Your task to perform on an android device: check google app version Image 0: 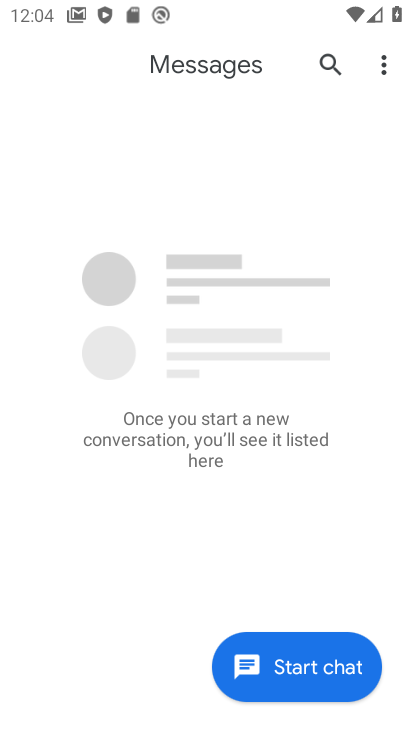
Step 0: press home button
Your task to perform on an android device: check google app version Image 1: 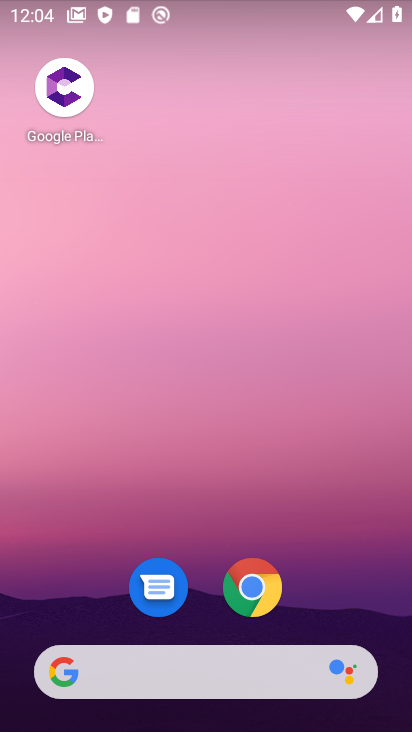
Step 1: drag from (63, 439) to (184, 128)
Your task to perform on an android device: check google app version Image 2: 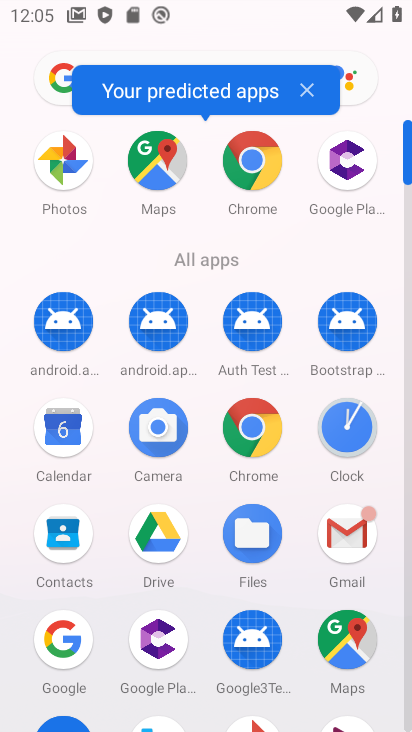
Step 2: click (237, 639)
Your task to perform on an android device: check google app version Image 3: 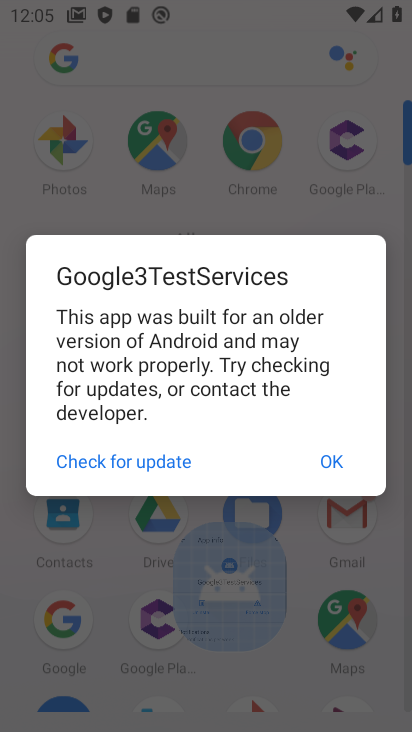
Step 3: click (336, 458)
Your task to perform on an android device: check google app version Image 4: 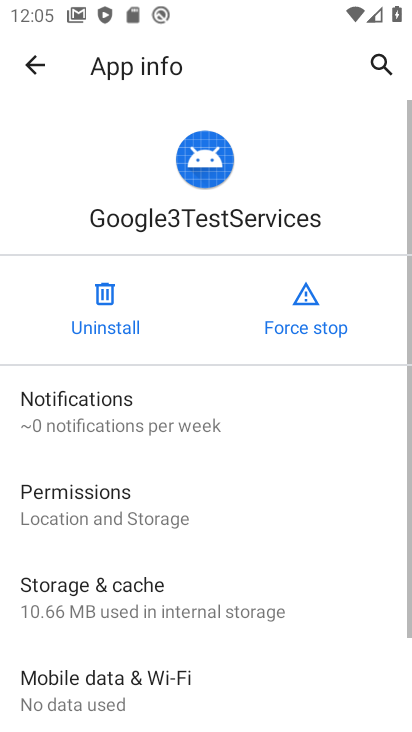
Step 4: drag from (218, 631) to (268, 218)
Your task to perform on an android device: check google app version Image 5: 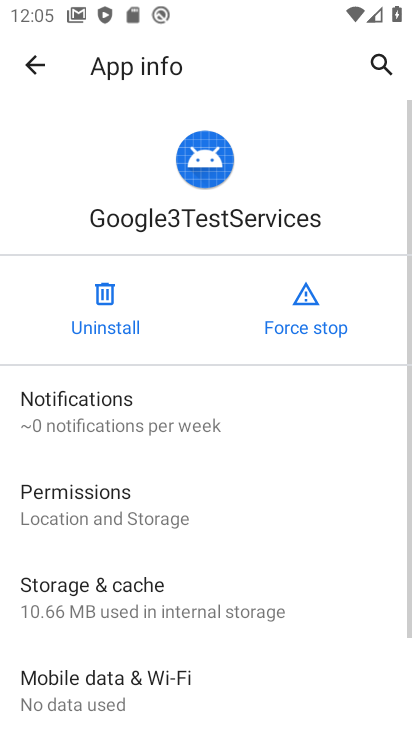
Step 5: drag from (92, 675) to (223, 240)
Your task to perform on an android device: check google app version Image 6: 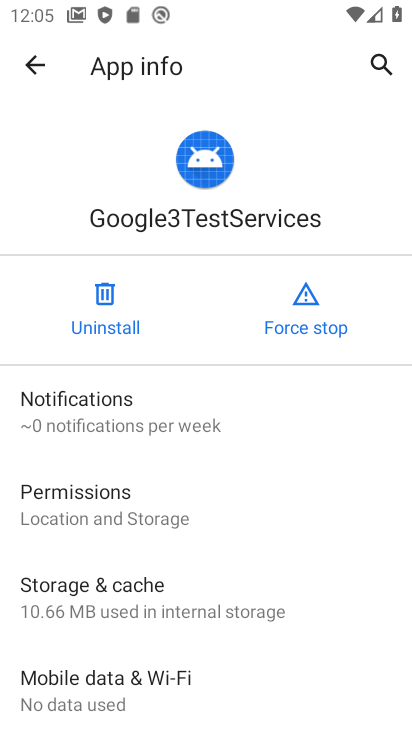
Step 6: drag from (51, 639) to (212, 322)
Your task to perform on an android device: check google app version Image 7: 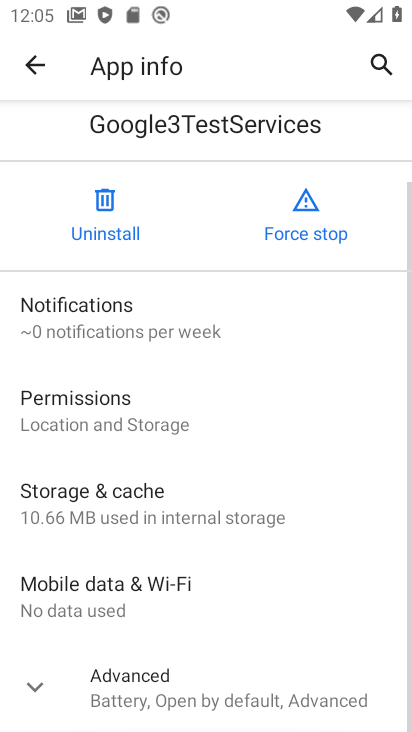
Step 7: click (108, 717)
Your task to perform on an android device: check google app version Image 8: 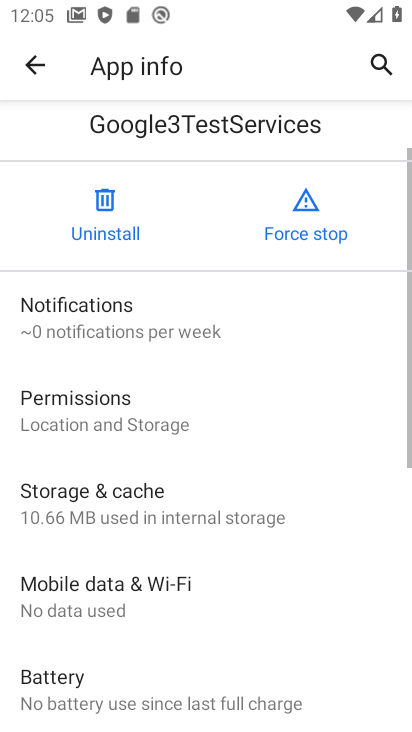
Step 8: task complete